Your task to perform on an android device: turn pop-ups off in chrome Image 0: 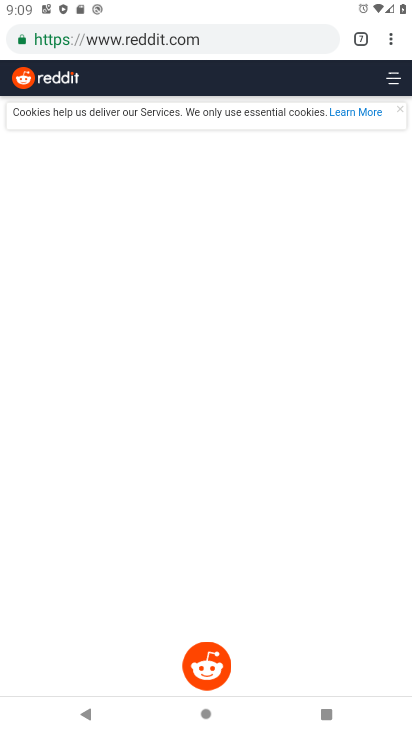
Step 0: press home button
Your task to perform on an android device: turn pop-ups off in chrome Image 1: 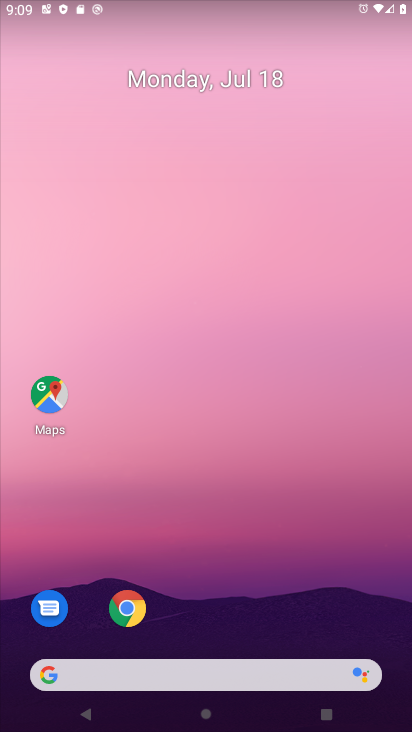
Step 1: click (124, 613)
Your task to perform on an android device: turn pop-ups off in chrome Image 2: 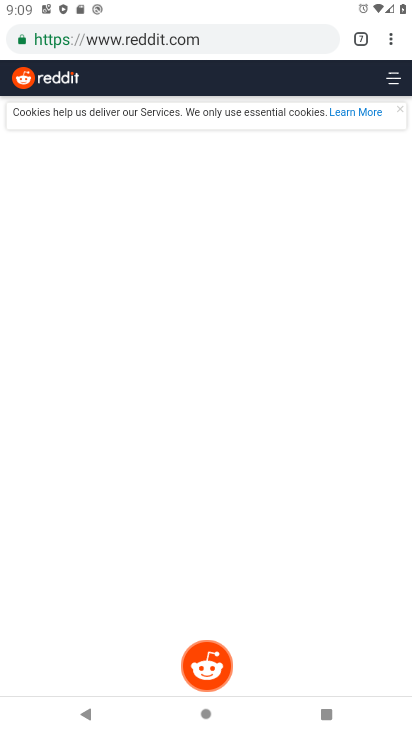
Step 2: click (392, 44)
Your task to perform on an android device: turn pop-ups off in chrome Image 3: 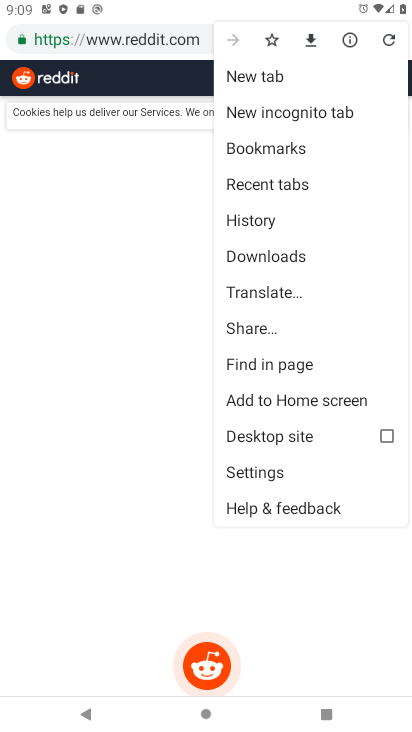
Step 3: click (260, 471)
Your task to perform on an android device: turn pop-ups off in chrome Image 4: 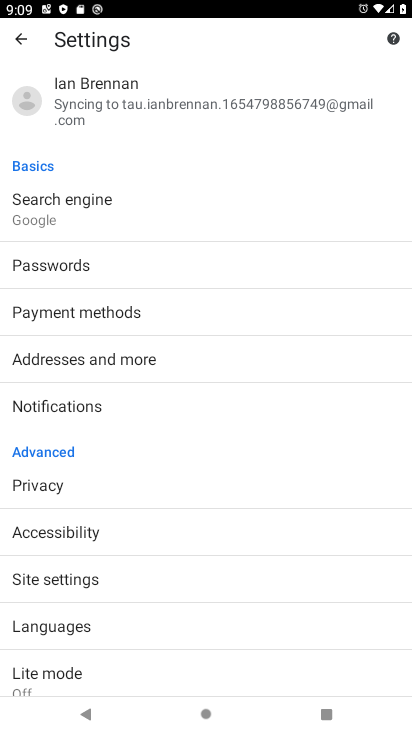
Step 4: click (67, 578)
Your task to perform on an android device: turn pop-ups off in chrome Image 5: 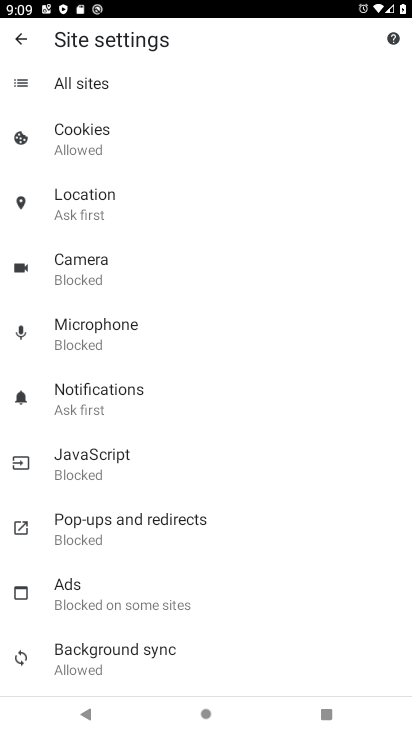
Step 5: click (77, 525)
Your task to perform on an android device: turn pop-ups off in chrome Image 6: 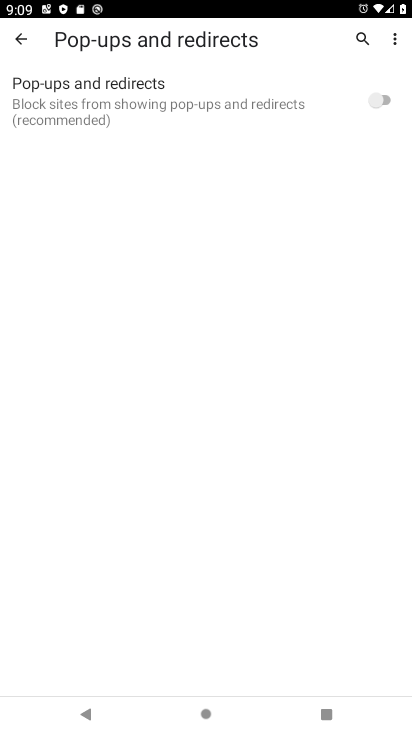
Step 6: task complete